Your task to perform on an android device: delete the emails in spam in the gmail app Image 0: 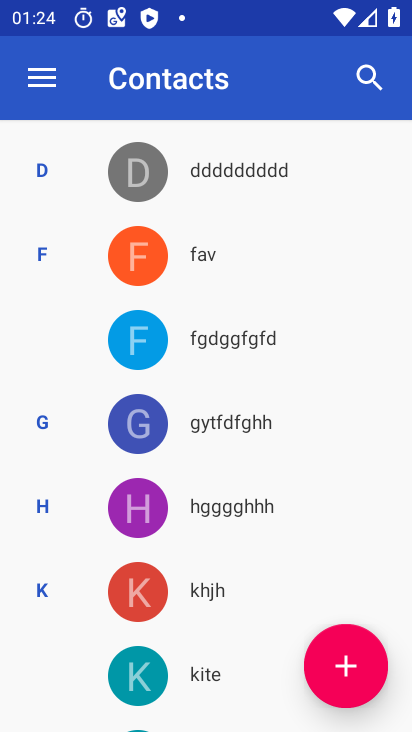
Step 0: press back button
Your task to perform on an android device: delete the emails in spam in the gmail app Image 1: 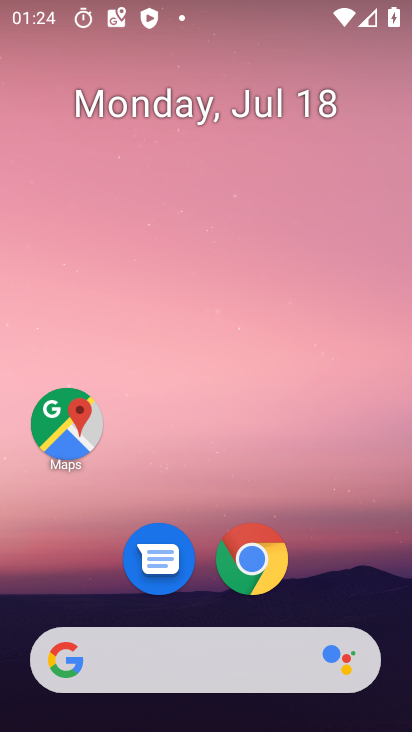
Step 1: drag from (103, 543) to (280, 27)
Your task to perform on an android device: delete the emails in spam in the gmail app Image 2: 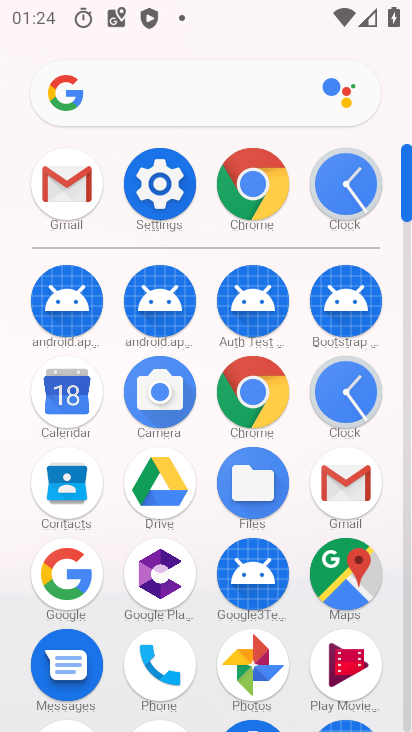
Step 2: click (78, 186)
Your task to perform on an android device: delete the emails in spam in the gmail app Image 3: 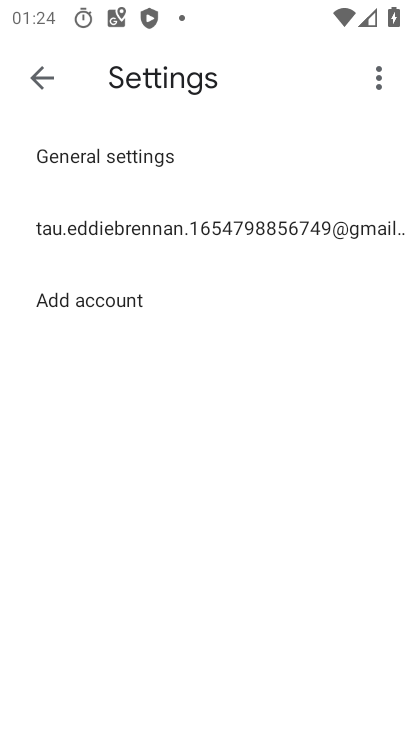
Step 3: click (70, 224)
Your task to perform on an android device: delete the emails in spam in the gmail app Image 4: 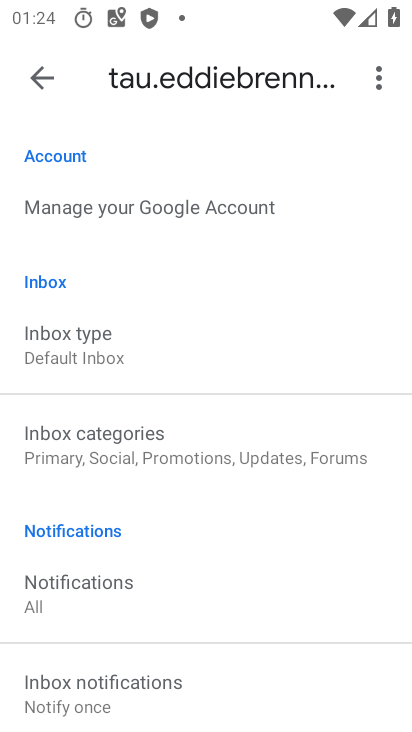
Step 4: click (34, 64)
Your task to perform on an android device: delete the emails in spam in the gmail app Image 5: 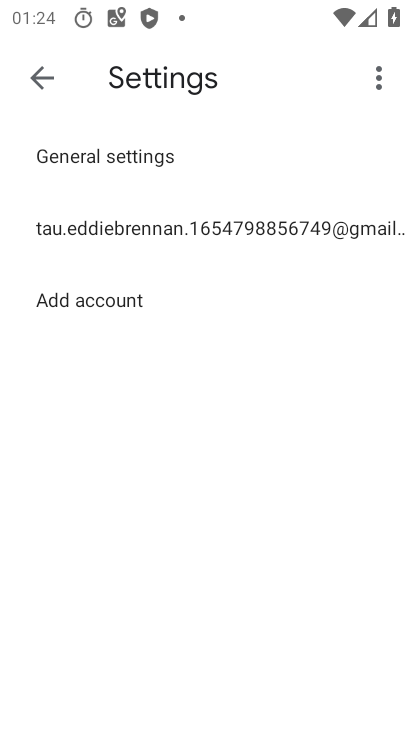
Step 5: click (34, 64)
Your task to perform on an android device: delete the emails in spam in the gmail app Image 6: 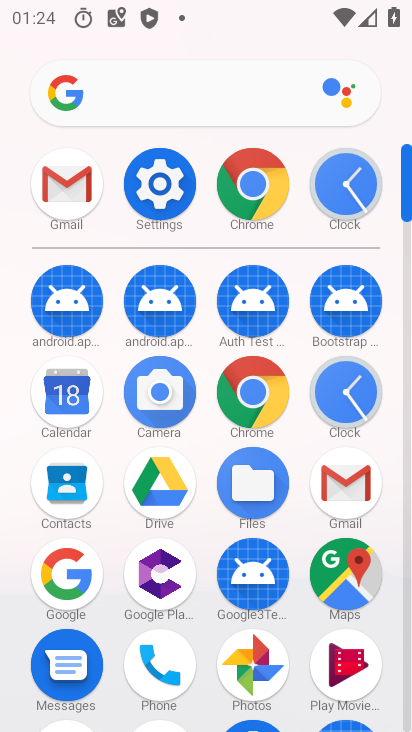
Step 6: click (65, 179)
Your task to perform on an android device: delete the emails in spam in the gmail app Image 7: 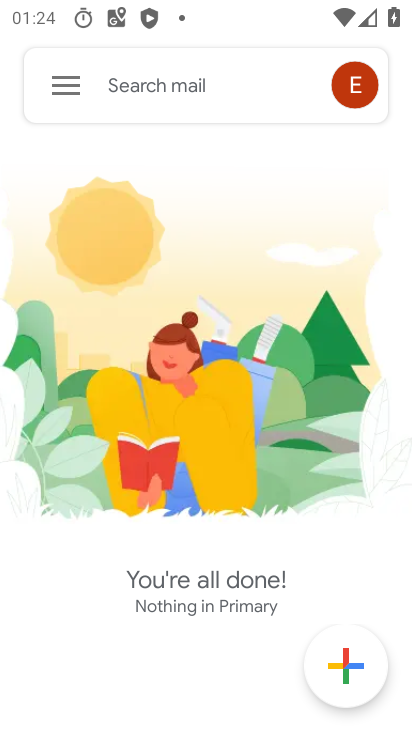
Step 7: click (70, 84)
Your task to perform on an android device: delete the emails in spam in the gmail app Image 8: 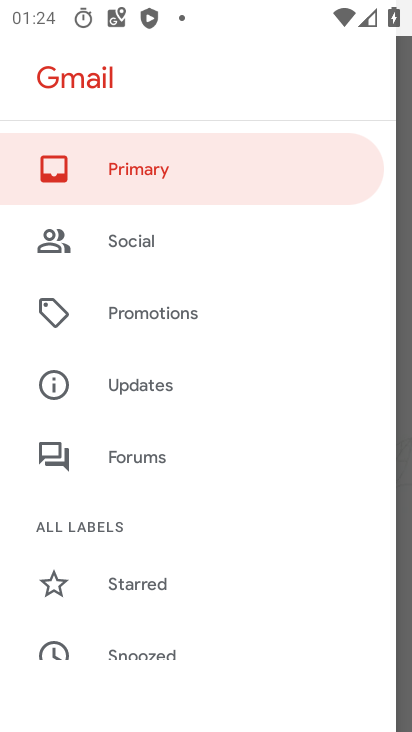
Step 8: drag from (172, 613) to (290, 105)
Your task to perform on an android device: delete the emails in spam in the gmail app Image 9: 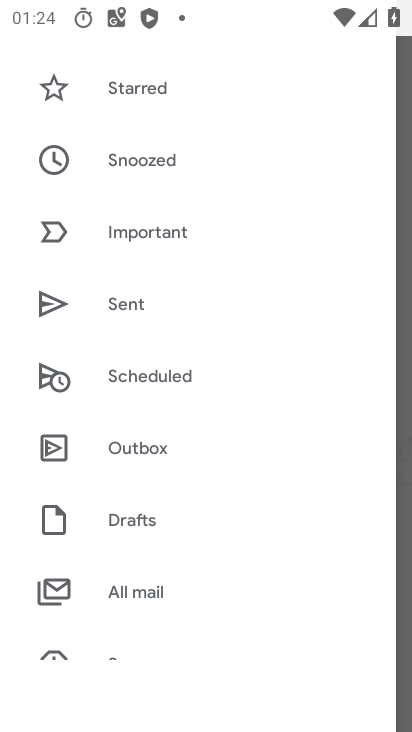
Step 9: drag from (200, 590) to (295, 101)
Your task to perform on an android device: delete the emails in spam in the gmail app Image 10: 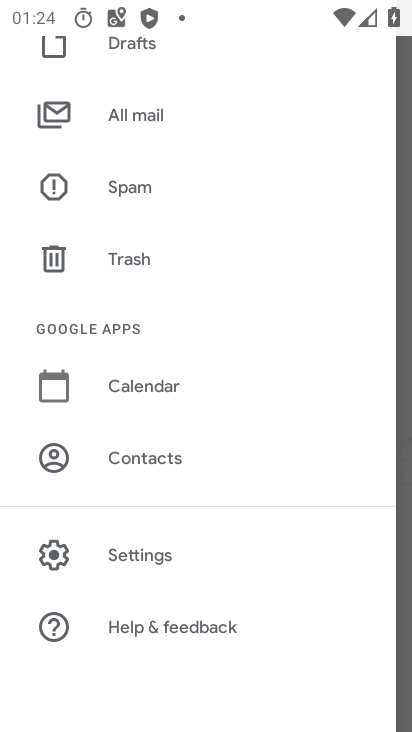
Step 10: click (124, 189)
Your task to perform on an android device: delete the emails in spam in the gmail app Image 11: 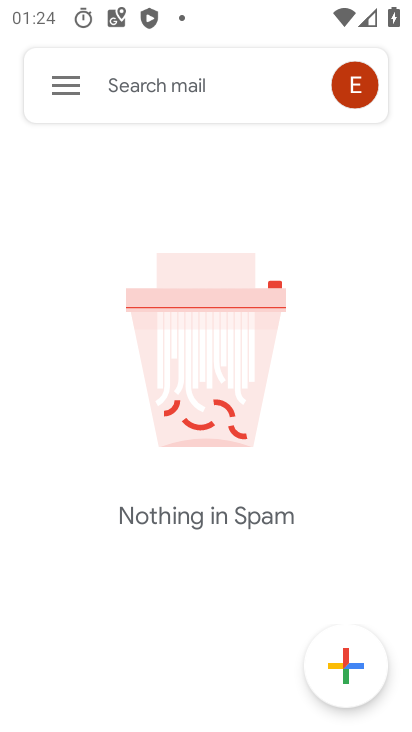
Step 11: task complete